Your task to perform on an android device: View the shopping cart on target. Search for "macbook" on target, select the first entry, add it to the cart, then select checkout. Image 0: 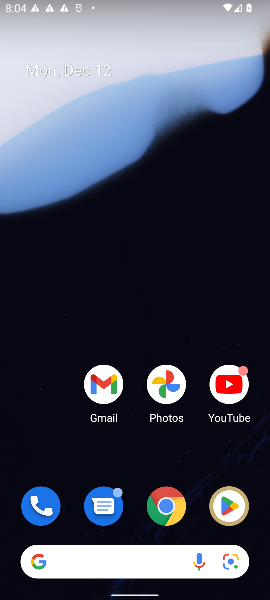
Step 0: click (144, 561)
Your task to perform on an android device: View the shopping cart on target. Search for "macbook" on target, select the first entry, add it to the cart, then select checkout. Image 1: 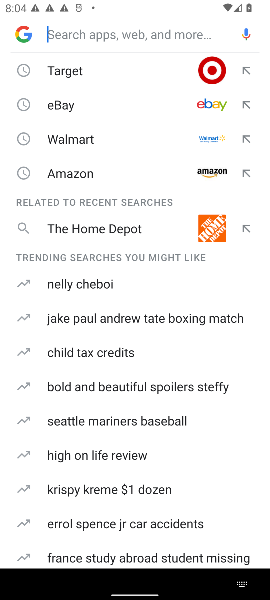
Step 1: click (60, 71)
Your task to perform on an android device: View the shopping cart on target. Search for "macbook" on target, select the first entry, add it to the cart, then select checkout. Image 2: 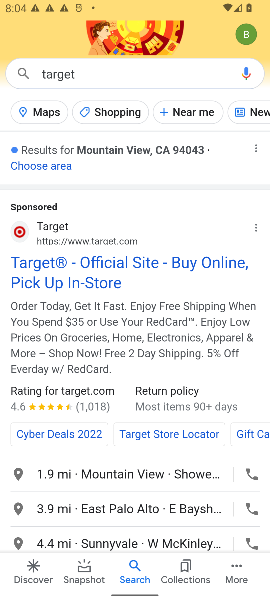
Step 2: click (74, 285)
Your task to perform on an android device: View the shopping cart on target. Search for "macbook" on target, select the first entry, add it to the cart, then select checkout. Image 3: 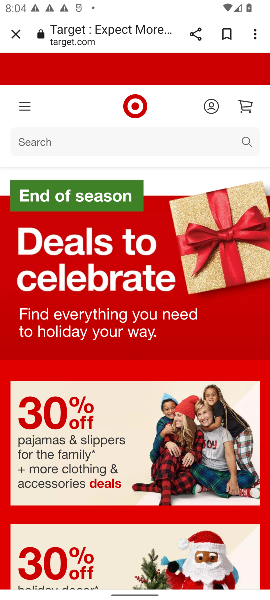
Step 3: click (101, 147)
Your task to perform on an android device: View the shopping cart on target. Search for "macbook" on target, select the first entry, add it to the cart, then select checkout. Image 4: 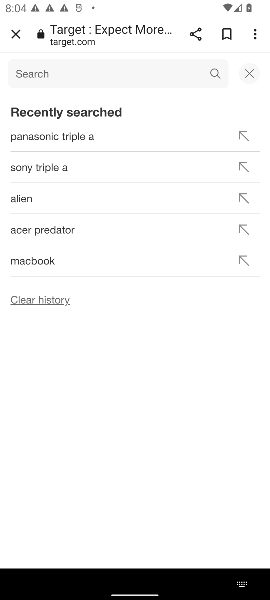
Step 4: type "macbook"
Your task to perform on an android device: View the shopping cart on target. Search for "macbook" on target, select the first entry, add it to the cart, then select checkout. Image 5: 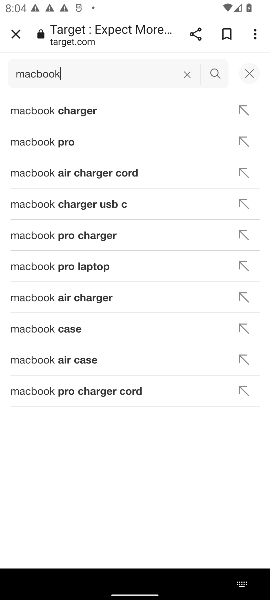
Step 5: click (65, 137)
Your task to perform on an android device: View the shopping cart on target. Search for "macbook" on target, select the first entry, add it to the cart, then select checkout. Image 6: 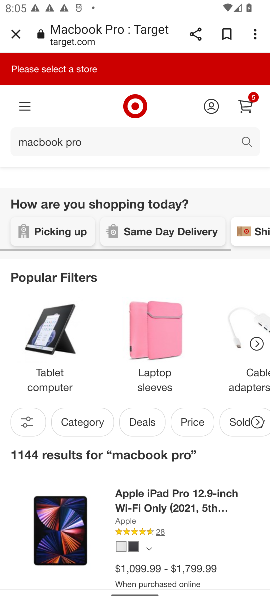
Step 6: click (188, 534)
Your task to perform on an android device: View the shopping cart on target. Search for "macbook" on target, select the first entry, add it to the cart, then select checkout. Image 7: 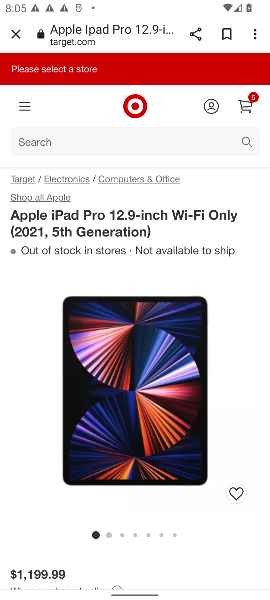
Step 7: drag from (165, 481) to (162, 230)
Your task to perform on an android device: View the shopping cart on target. Search for "macbook" on target, select the first entry, add it to the cart, then select checkout. Image 8: 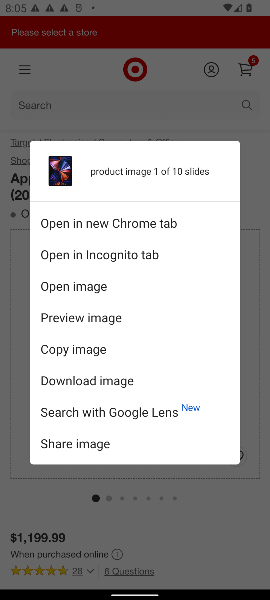
Step 8: click (221, 511)
Your task to perform on an android device: View the shopping cart on target. Search for "macbook" on target, select the first entry, add it to the cart, then select checkout. Image 9: 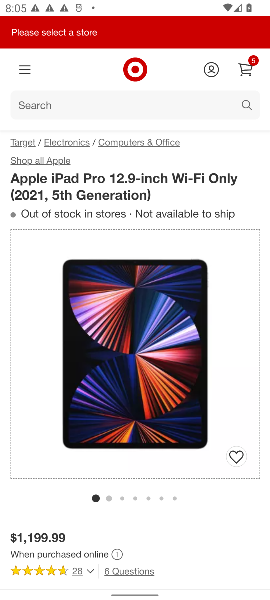
Step 9: drag from (221, 511) to (104, 151)
Your task to perform on an android device: View the shopping cart on target. Search for "macbook" on target, select the first entry, add it to the cart, then select checkout. Image 10: 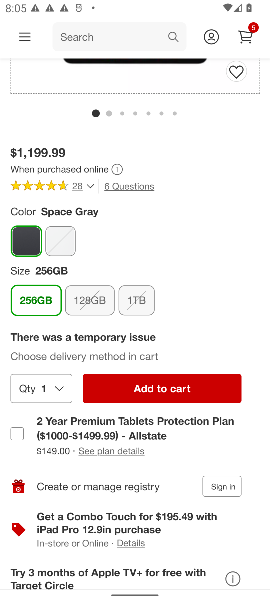
Step 10: click (157, 375)
Your task to perform on an android device: View the shopping cart on target. Search for "macbook" on target, select the first entry, add it to the cart, then select checkout. Image 11: 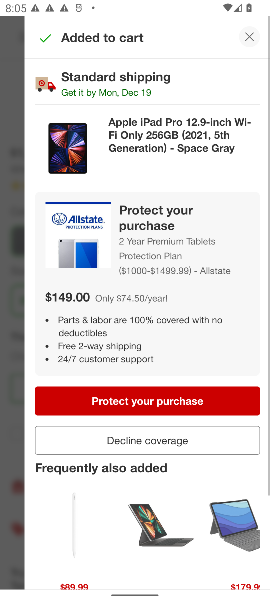
Step 11: task complete